Your task to perform on an android device: open a bookmark in the chrome app Image 0: 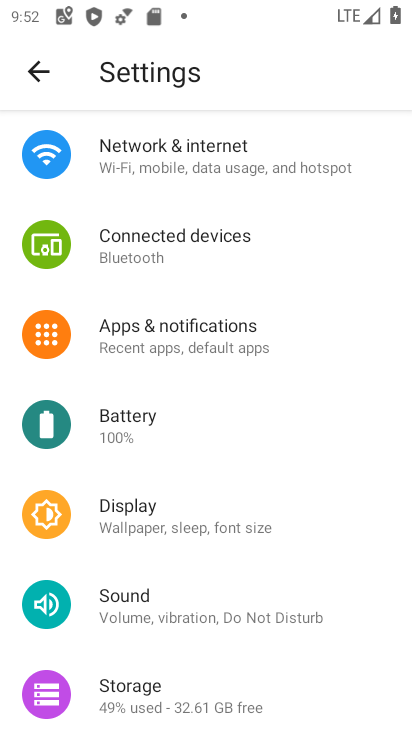
Step 0: press home button
Your task to perform on an android device: open a bookmark in the chrome app Image 1: 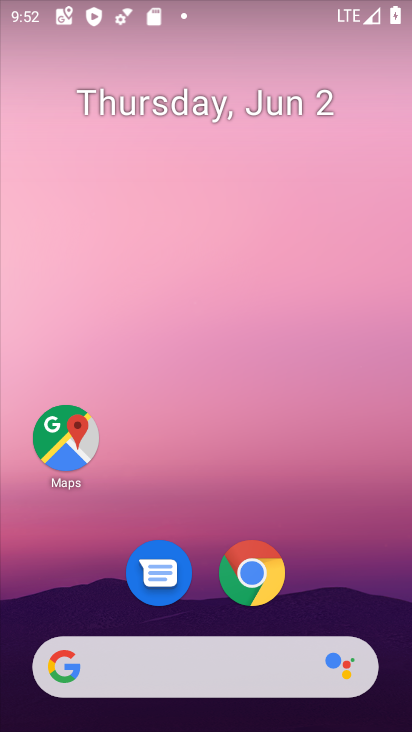
Step 1: click (251, 577)
Your task to perform on an android device: open a bookmark in the chrome app Image 2: 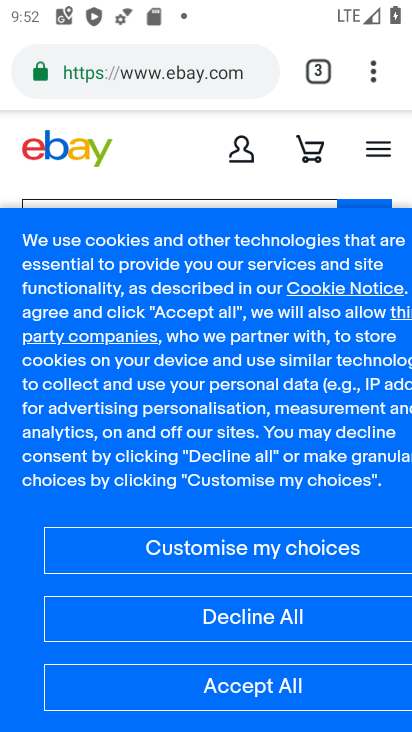
Step 2: click (375, 64)
Your task to perform on an android device: open a bookmark in the chrome app Image 3: 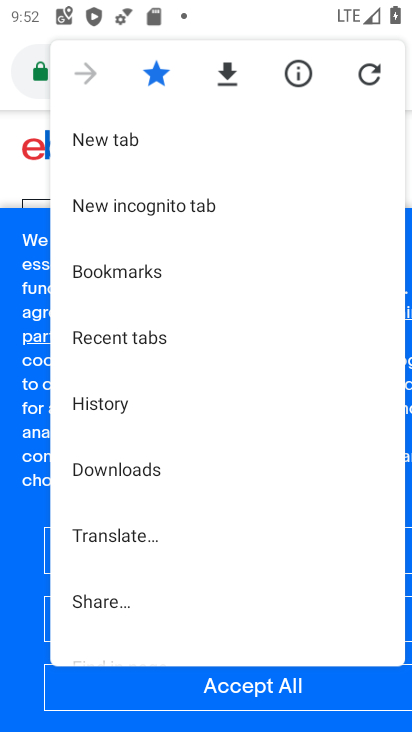
Step 3: click (134, 267)
Your task to perform on an android device: open a bookmark in the chrome app Image 4: 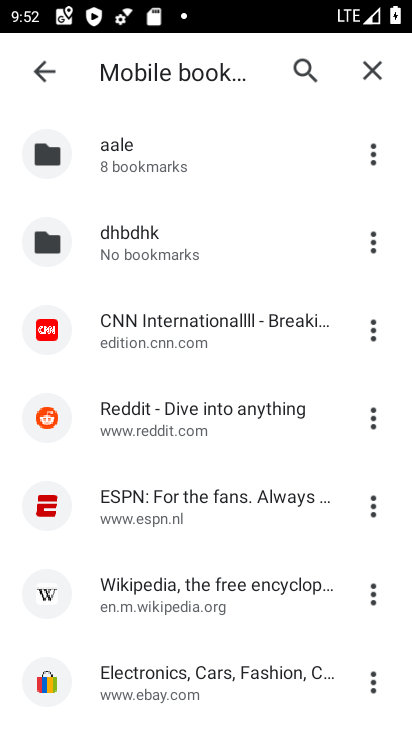
Step 4: click (175, 410)
Your task to perform on an android device: open a bookmark in the chrome app Image 5: 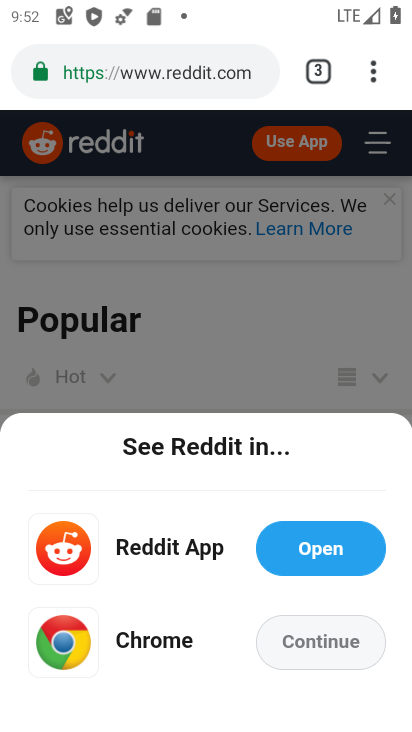
Step 5: click (293, 643)
Your task to perform on an android device: open a bookmark in the chrome app Image 6: 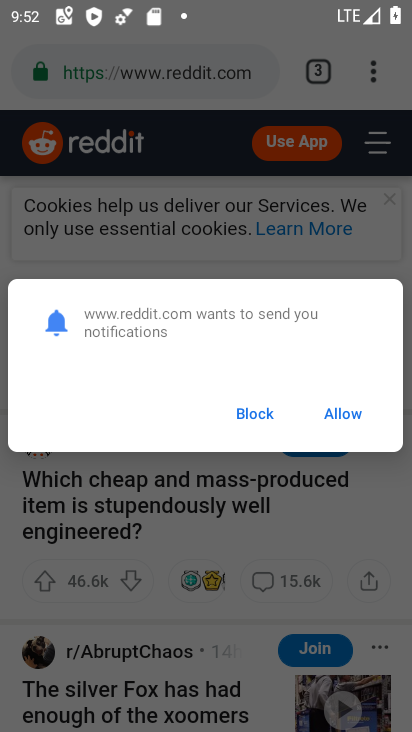
Step 6: click (342, 413)
Your task to perform on an android device: open a bookmark in the chrome app Image 7: 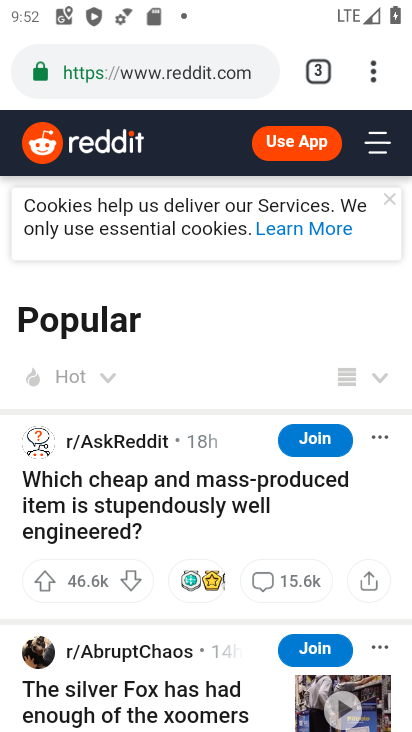
Step 7: task complete